Your task to perform on an android device: Search for flights from Buenos aires to Helsinki Image 0: 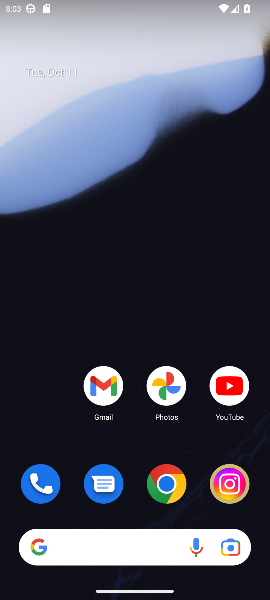
Step 0: click (166, 486)
Your task to perform on an android device: Search for flights from Buenos aires to Helsinki Image 1: 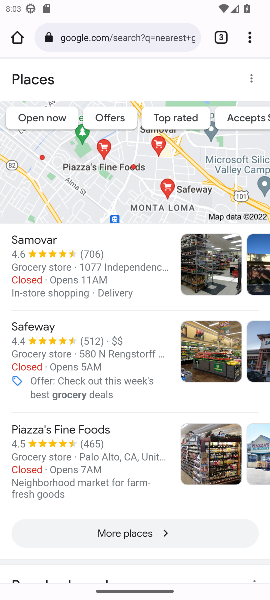
Step 1: click (97, 43)
Your task to perform on an android device: Search for flights from Buenos aires to Helsinki Image 2: 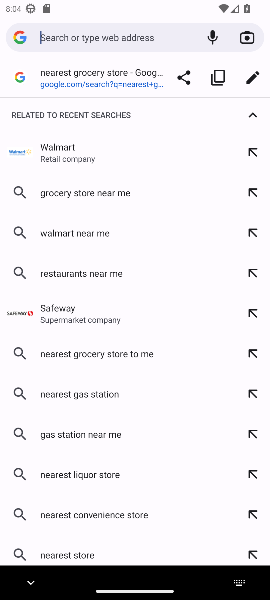
Step 2: type "flights from Buenos aires to Helsinki"
Your task to perform on an android device: Search for flights from Buenos aires to Helsinki Image 3: 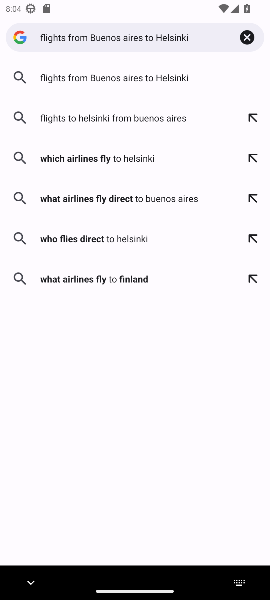
Step 3: click (153, 79)
Your task to perform on an android device: Search for flights from Buenos aires to Helsinki Image 4: 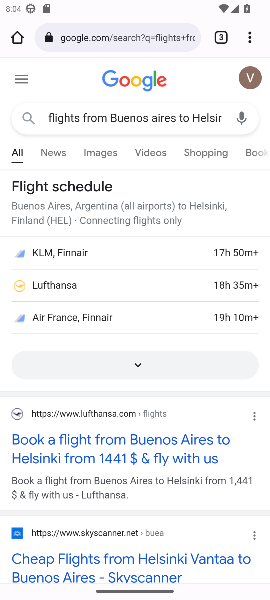
Step 4: task complete